Your task to perform on an android device: toggle notifications settings in the gmail app Image 0: 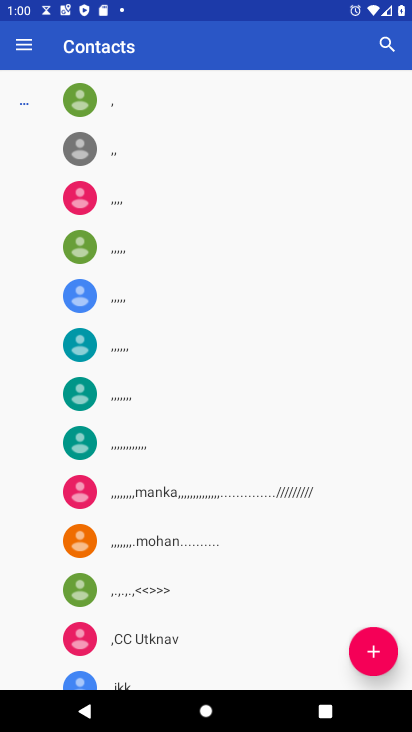
Step 0: press home button
Your task to perform on an android device: toggle notifications settings in the gmail app Image 1: 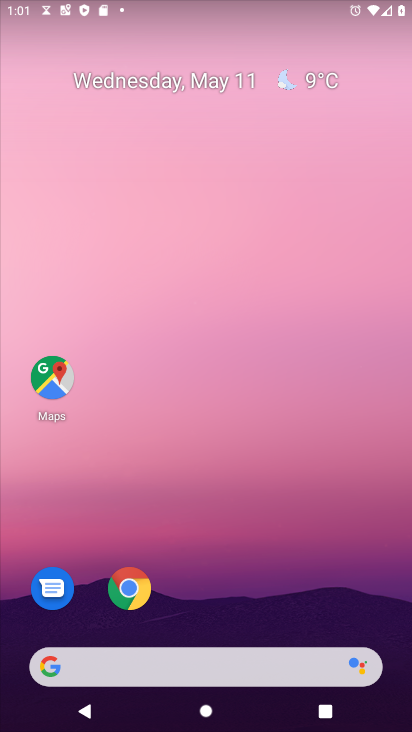
Step 1: drag from (370, 565) to (382, 3)
Your task to perform on an android device: toggle notifications settings in the gmail app Image 2: 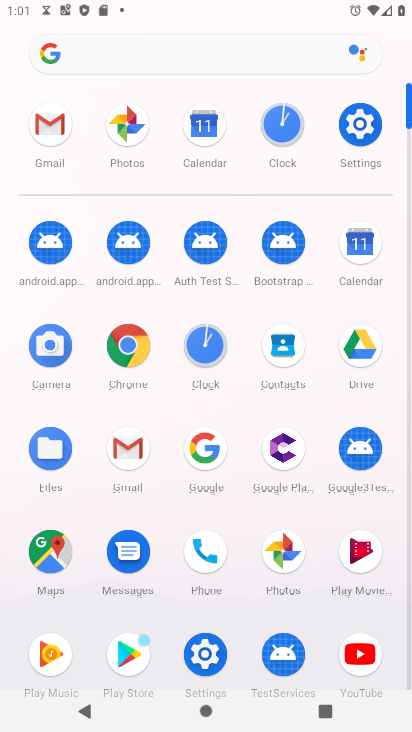
Step 2: click (50, 133)
Your task to perform on an android device: toggle notifications settings in the gmail app Image 3: 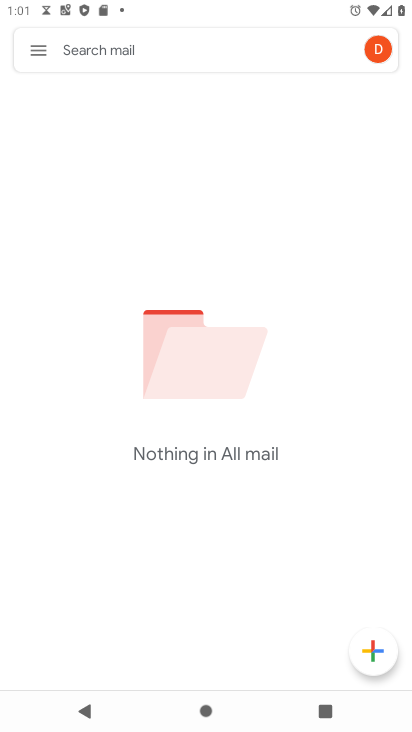
Step 3: click (42, 51)
Your task to perform on an android device: toggle notifications settings in the gmail app Image 4: 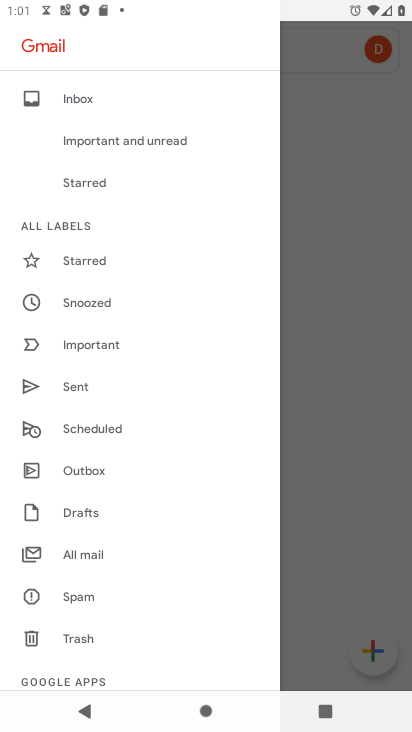
Step 4: drag from (166, 634) to (171, 281)
Your task to perform on an android device: toggle notifications settings in the gmail app Image 5: 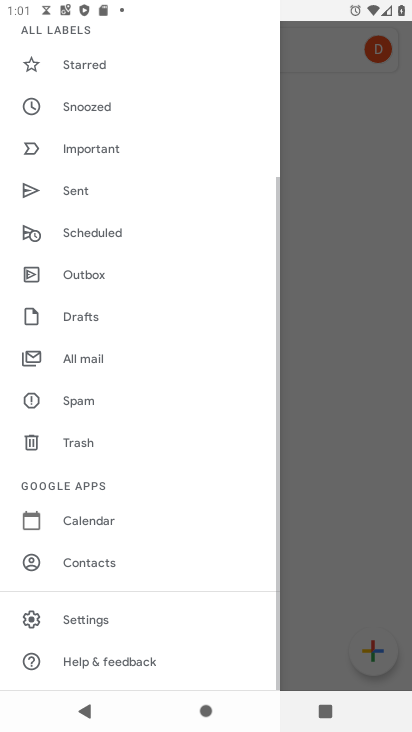
Step 5: click (90, 618)
Your task to perform on an android device: toggle notifications settings in the gmail app Image 6: 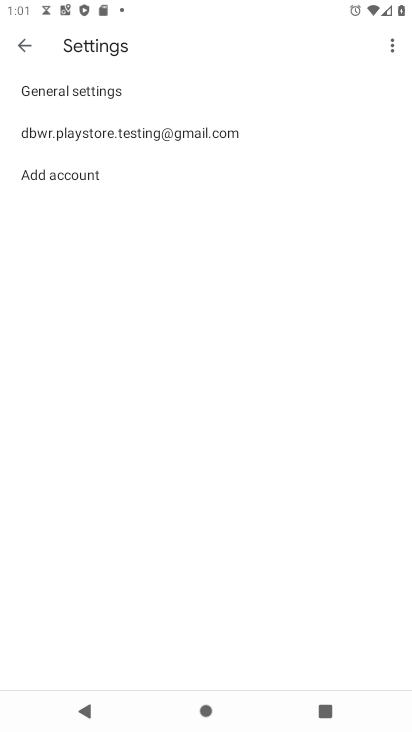
Step 6: click (60, 95)
Your task to perform on an android device: toggle notifications settings in the gmail app Image 7: 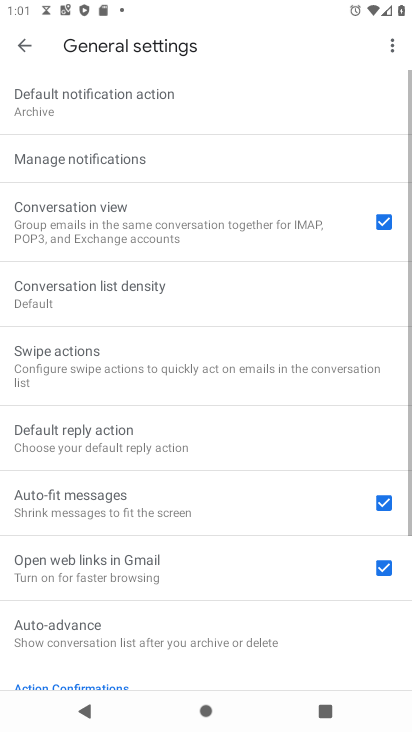
Step 7: click (90, 158)
Your task to perform on an android device: toggle notifications settings in the gmail app Image 8: 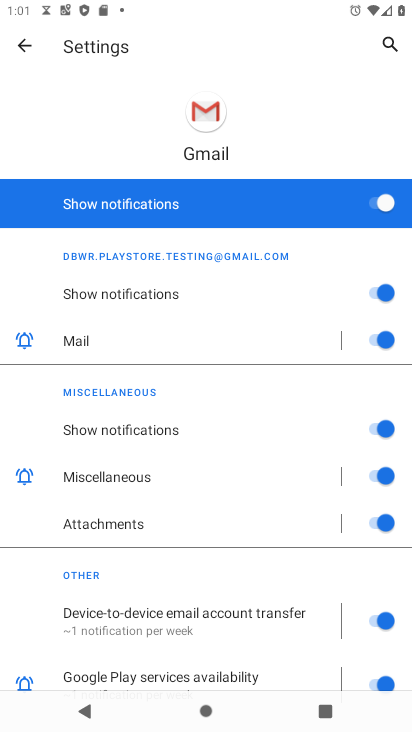
Step 8: click (385, 209)
Your task to perform on an android device: toggle notifications settings in the gmail app Image 9: 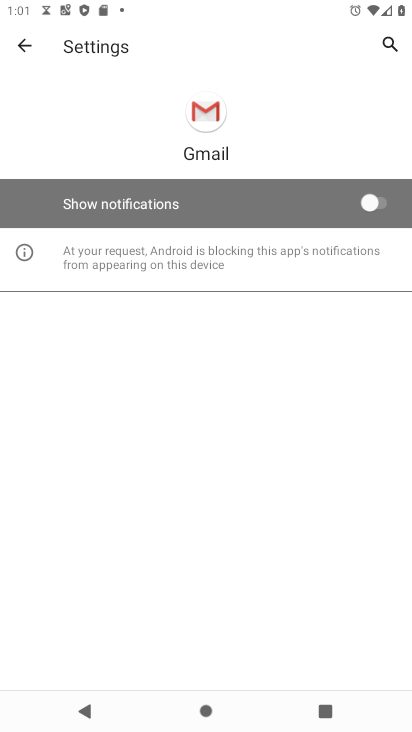
Step 9: task complete